Your task to perform on an android device: Show me the alarms in the clock app Image 0: 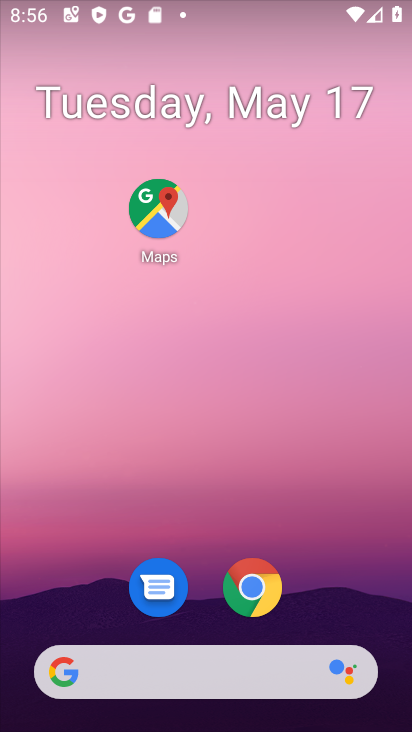
Step 0: drag from (26, 532) to (165, 152)
Your task to perform on an android device: Show me the alarms in the clock app Image 1: 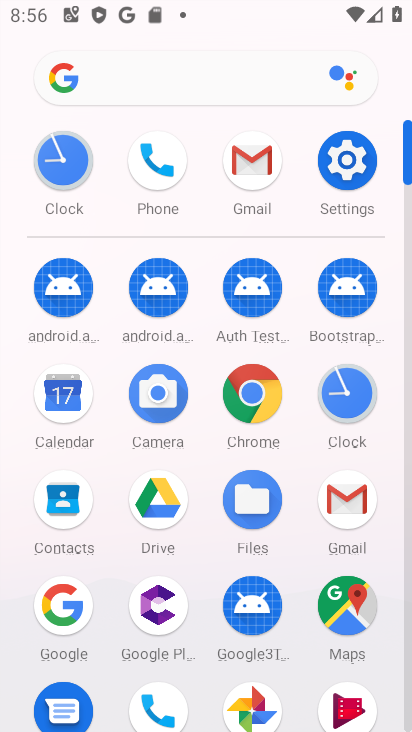
Step 1: click (62, 156)
Your task to perform on an android device: Show me the alarms in the clock app Image 2: 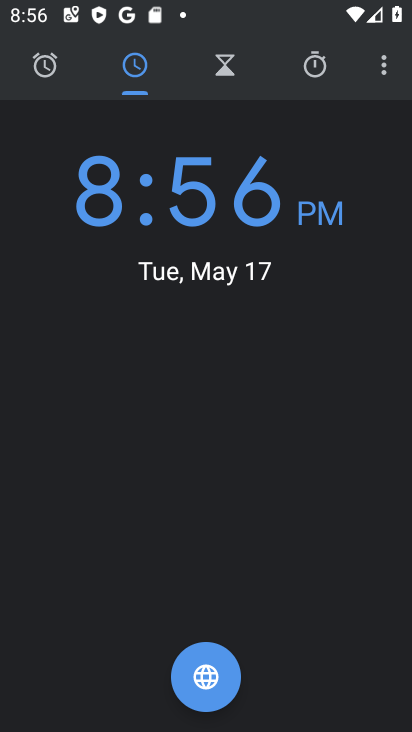
Step 2: click (41, 73)
Your task to perform on an android device: Show me the alarms in the clock app Image 3: 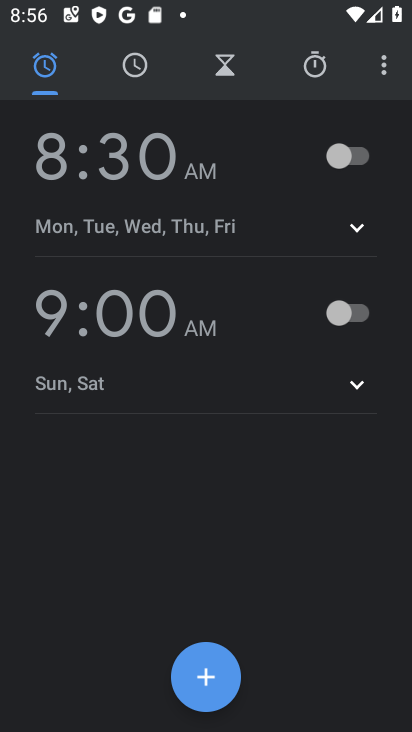
Step 3: task complete